Your task to perform on an android device: Show me productivity apps on the Play Store Image 0: 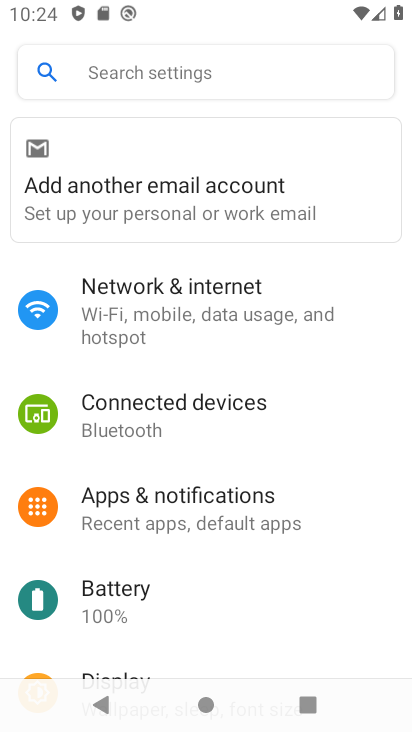
Step 0: press home button
Your task to perform on an android device: Show me productivity apps on the Play Store Image 1: 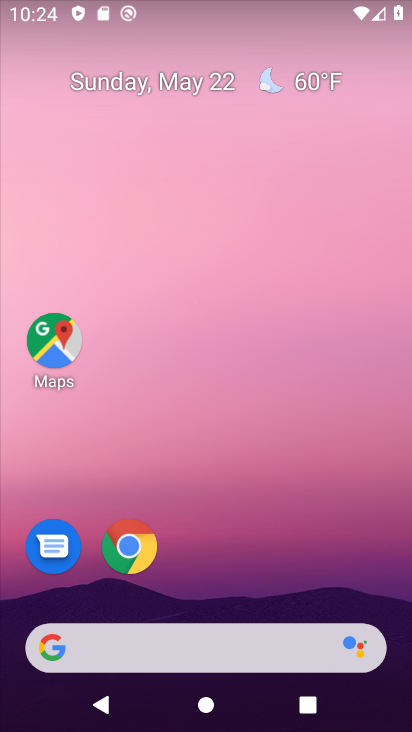
Step 1: drag from (231, 727) to (181, 107)
Your task to perform on an android device: Show me productivity apps on the Play Store Image 2: 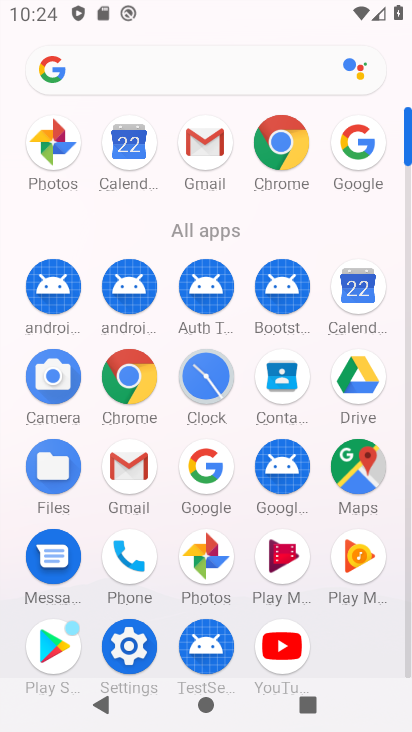
Step 2: click (61, 644)
Your task to perform on an android device: Show me productivity apps on the Play Store Image 3: 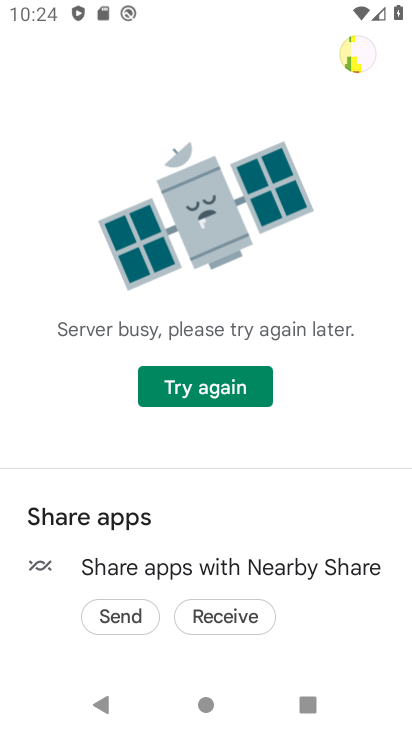
Step 3: click (209, 378)
Your task to perform on an android device: Show me productivity apps on the Play Store Image 4: 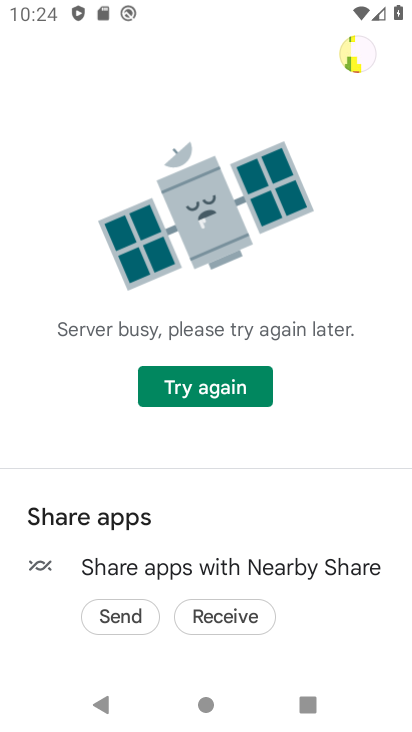
Step 4: task complete